Your task to perform on an android device: turn on translation in the chrome app Image 0: 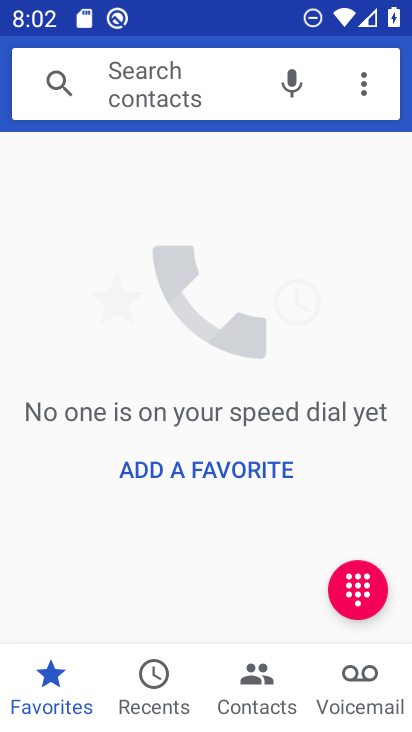
Step 0: press back button
Your task to perform on an android device: turn on translation in the chrome app Image 1: 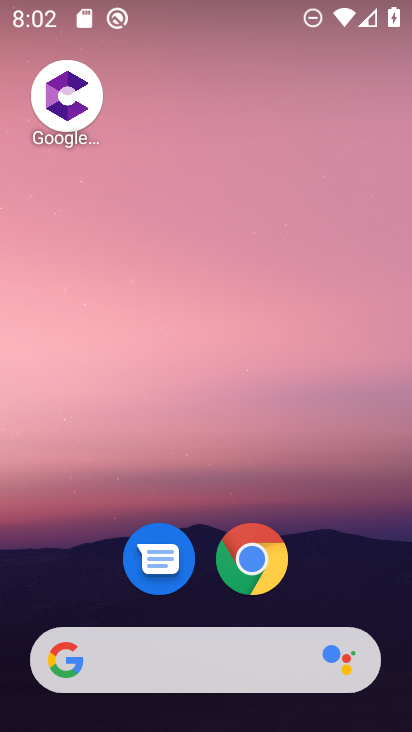
Step 1: click (248, 557)
Your task to perform on an android device: turn on translation in the chrome app Image 2: 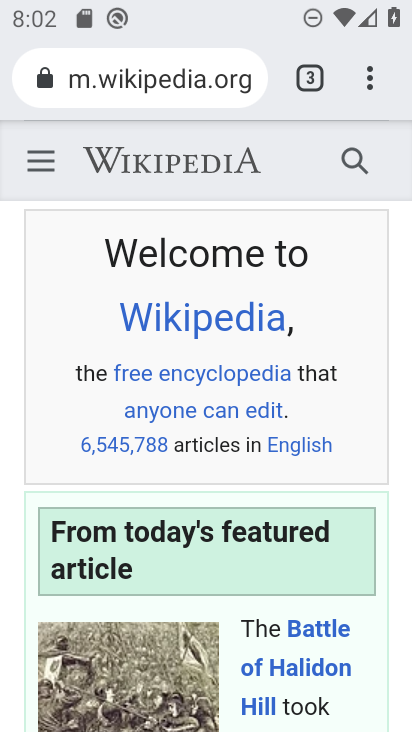
Step 2: drag from (367, 83) to (121, 617)
Your task to perform on an android device: turn on translation in the chrome app Image 3: 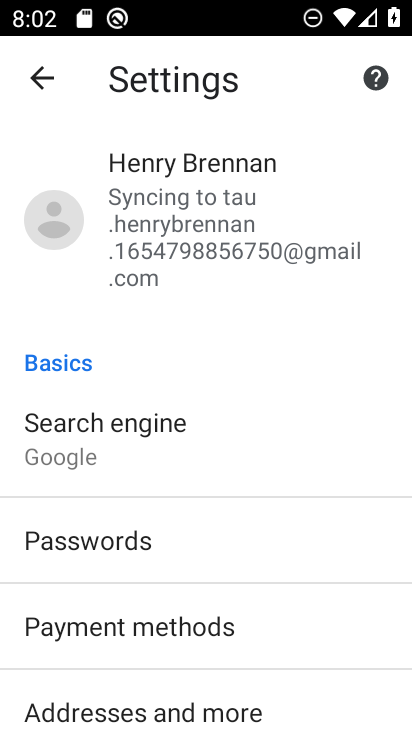
Step 3: drag from (95, 634) to (231, 96)
Your task to perform on an android device: turn on translation in the chrome app Image 4: 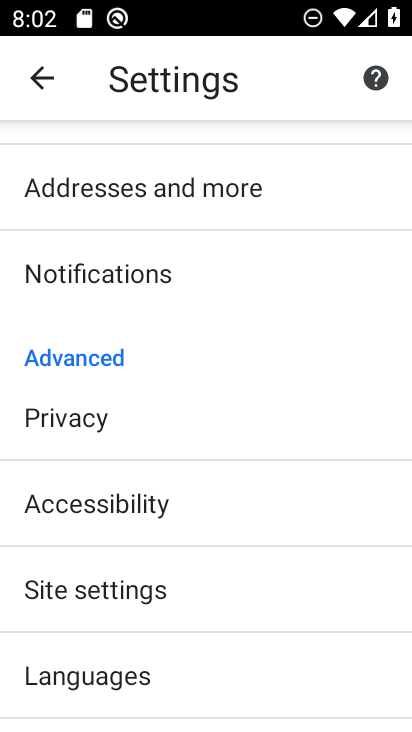
Step 4: click (76, 678)
Your task to perform on an android device: turn on translation in the chrome app Image 5: 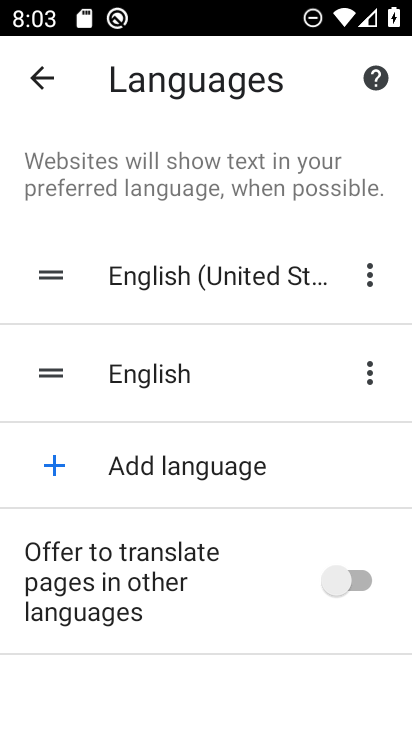
Step 5: click (356, 573)
Your task to perform on an android device: turn on translation in the chrome app Image 6: 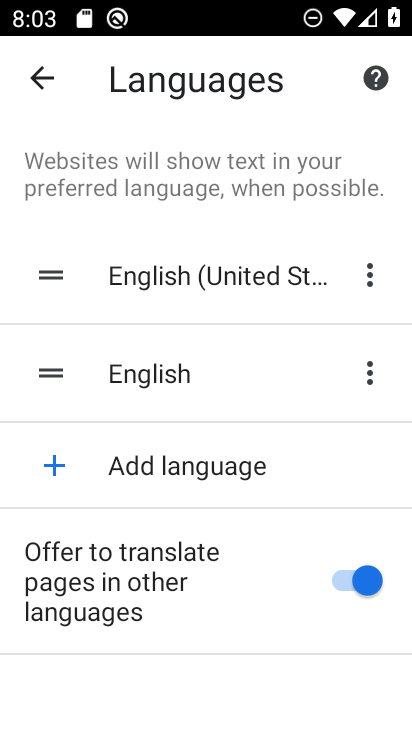
Step 6: task complete